Your task to perform on an android device: Search for Mexican restaurants on Maps Image 0: 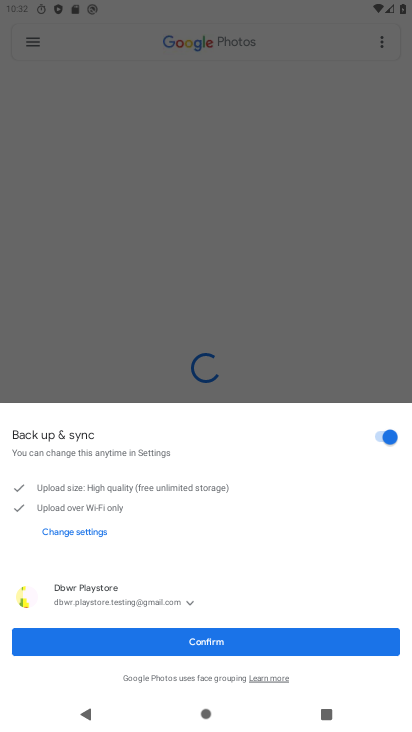
Step 0: press home button
Your task to perform on an android device: Search for Mexican restaurants on Maps Image 1: 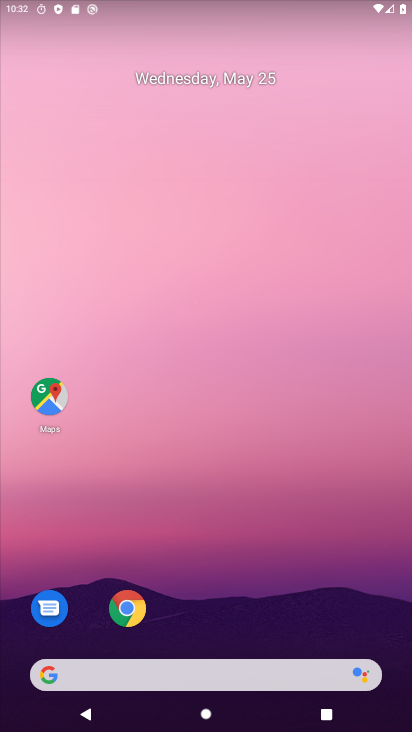
Step 1: click (50, 401)
Your task to perform on an android device: Search for Mexican restaurants on Maps Image 2: 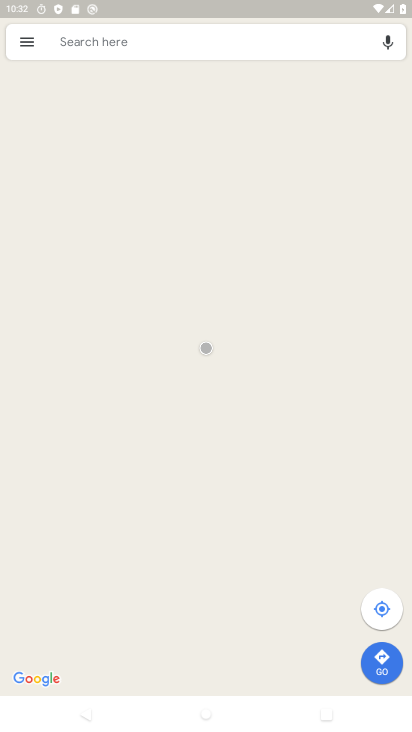
Step 2: click (165, 47)
Your task to perform on an android device: Search for Mexican restaurants on Maps Image 3: 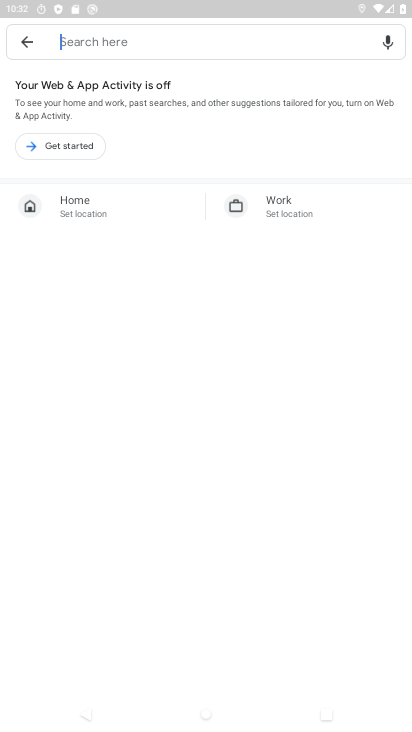
Step 3: click (165, 47)
Your task to perform on an android device: Search for Mexican restaurants on Maps Image 4: 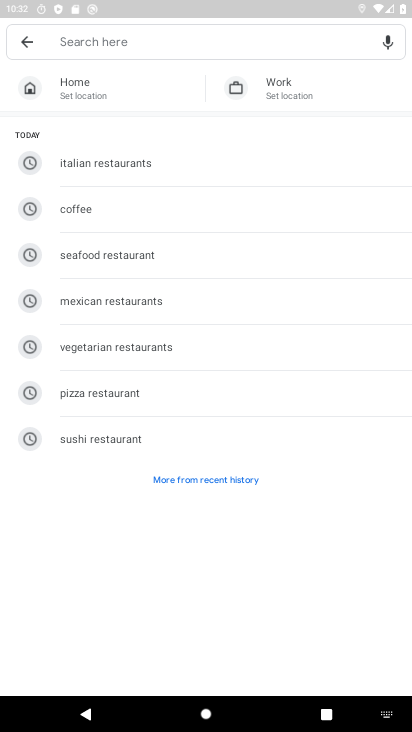
Step 4: click (128, 313)
Your task to perform on an android device: Search for Mexican restaurants on Maps Image 5: 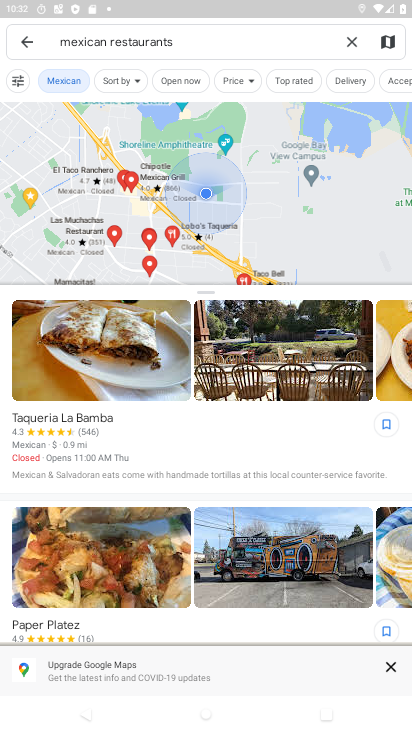
Step 5: task complete